Your task to perform on an android device: check battery use Image 0: 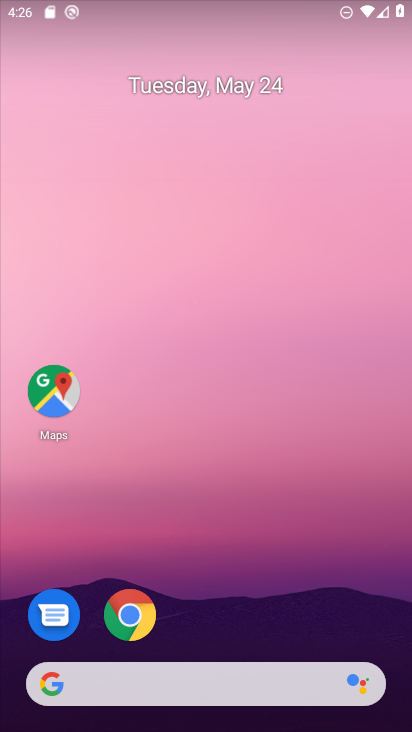
Step 0: drag from (232, 641) to (244, 175)
Your task to perform on an android device: check battery use Image 1: 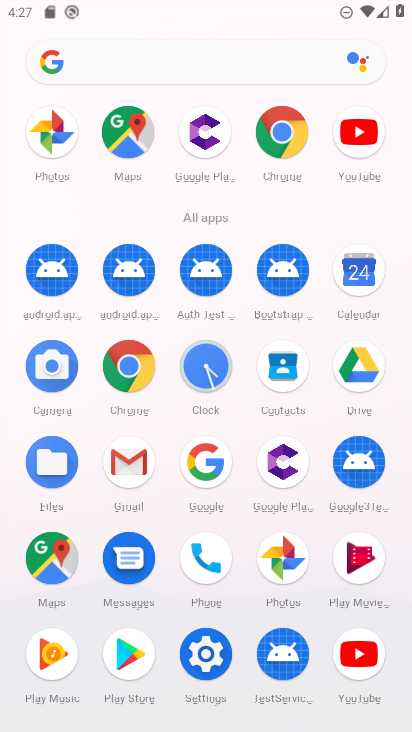
Step 1: click (182, 667)
Your task to perform on an android device: check battery use Image 2: 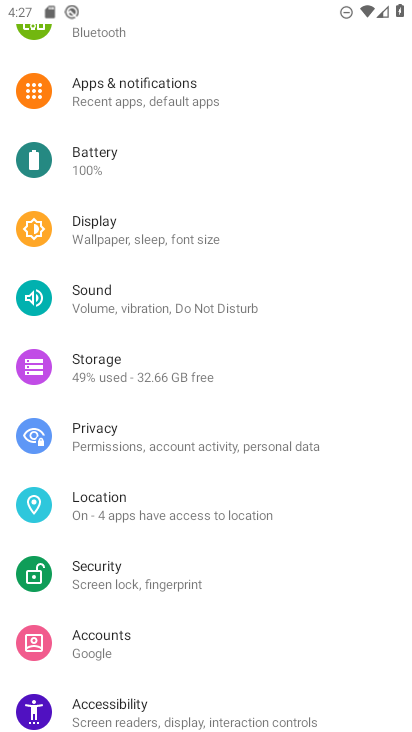
Step 2: click (118, 167)
Your task to perform on an android device: check battery use Image 3: 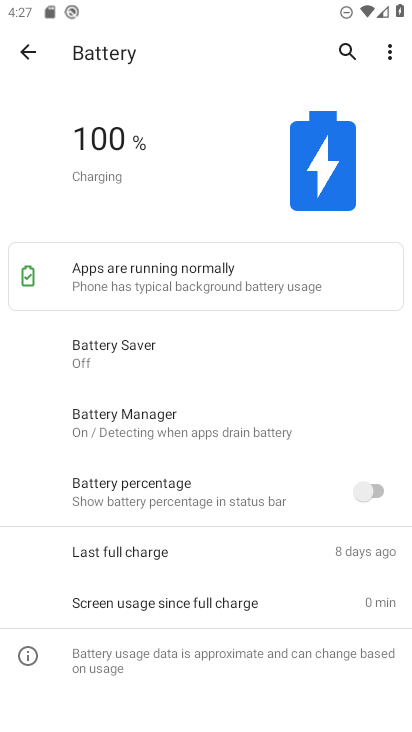
Step 3: task complete